Your task to perform on an android device: toggle priority inbox in the gmail app Image 0: 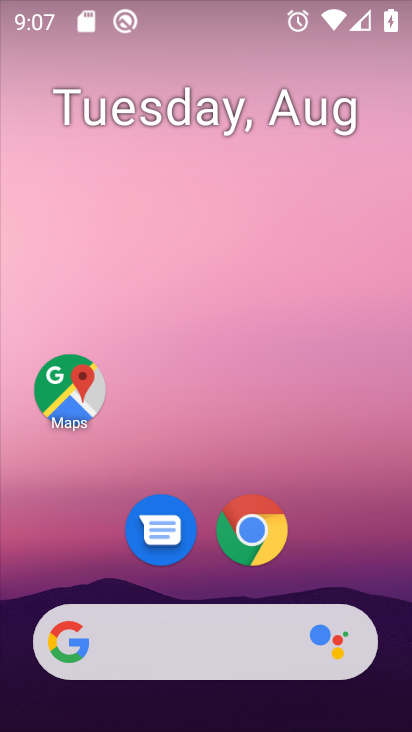
Step 0: drag from (333, 492) to (221, 97)
Your task to perform on an android device: toggle priority inbox in the gmail app Image 1: 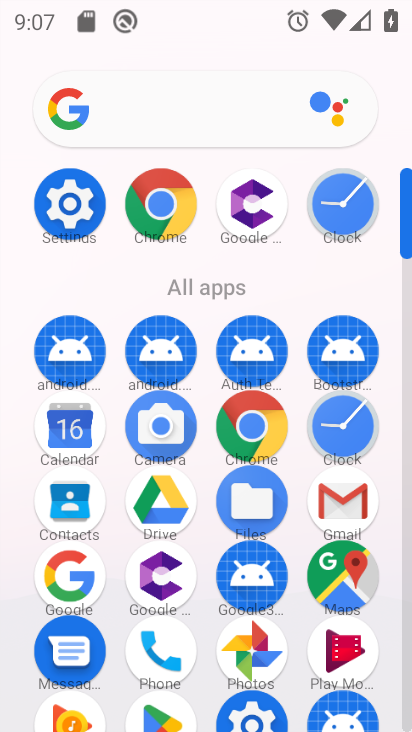
Step 1: click (336, 487)
Your task to perform on an android device: toggle priority inbox in the gmail app Image 2: 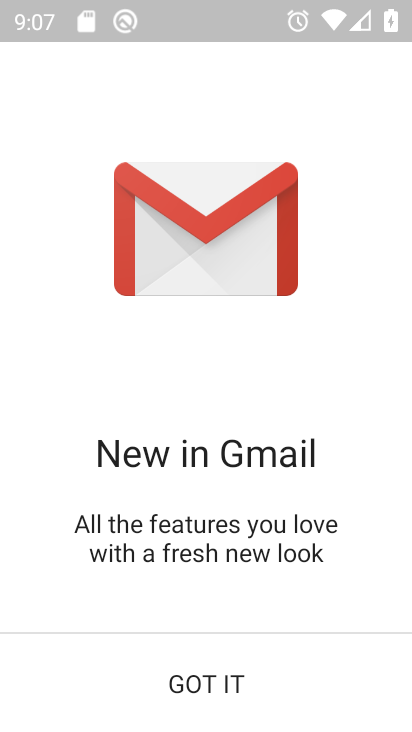
Step 2: click (240, 657)
Your task to perform on an android device: toggle priority inbox in the gmail app Image 3: 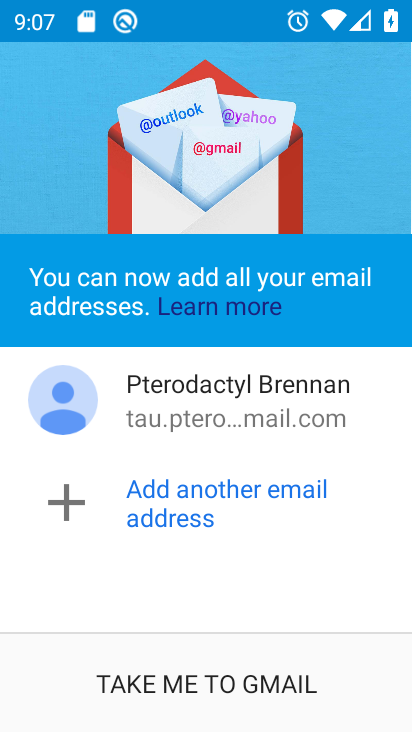
Step 3: click (236, 685)
Your task to perform on an android device: toggle priority inbox in the gmail app Image 4: 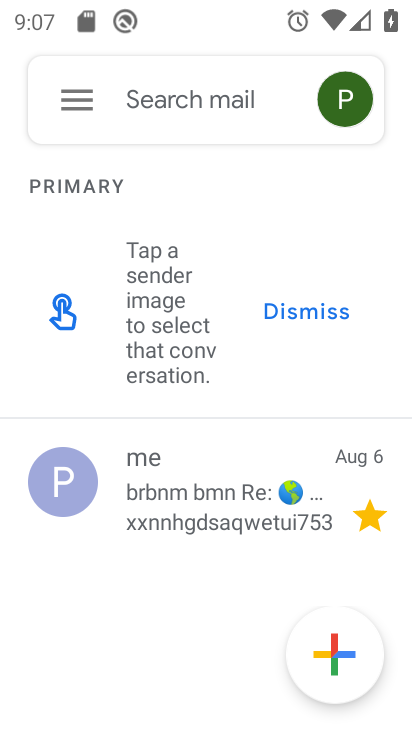
Step 4: click (62, 100)
Your task to perform on an android device: toggle priority inbox in the gmail app Image 5: 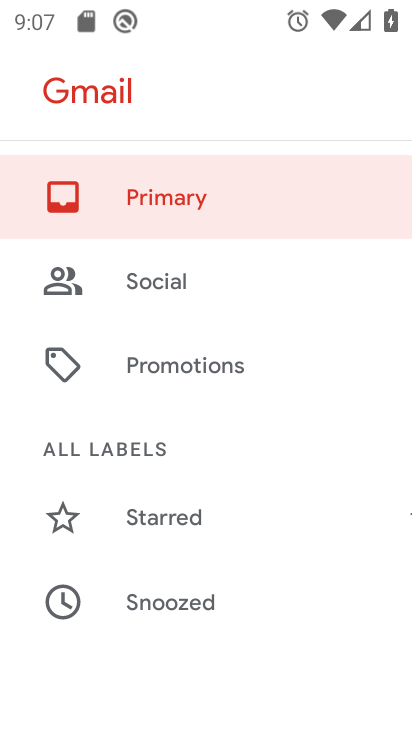
Step 5: drag from (174, 606) to (174, 4)
Your task to perform on an android device: toggle priority inbox in the gmail app Image 6: 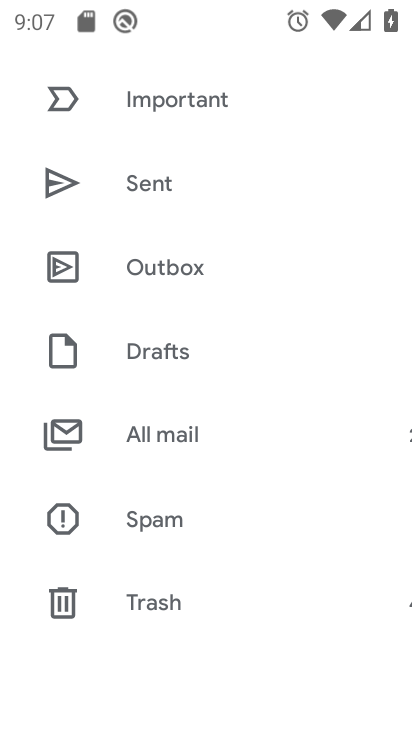
Step 6: drag from (213, 538) to (255, 88)
Your task to perform on an android device: toggle priority inbox in the gmail app Image 7: 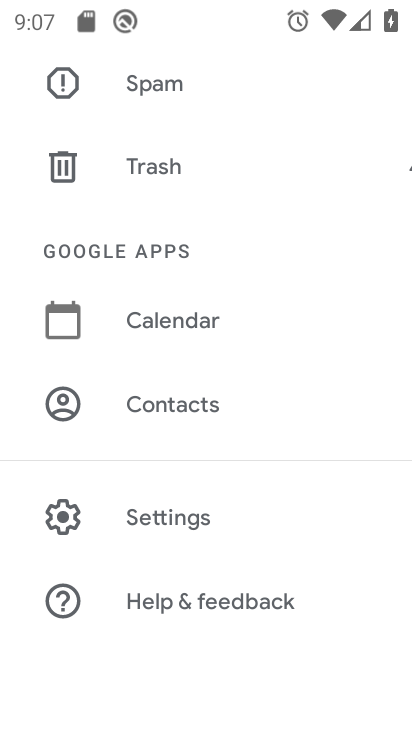
Step 7: drag from (231, 529) to (292, 53)
Your task to perform on an android device: toggle priority inbox in the gmail app Image 8: 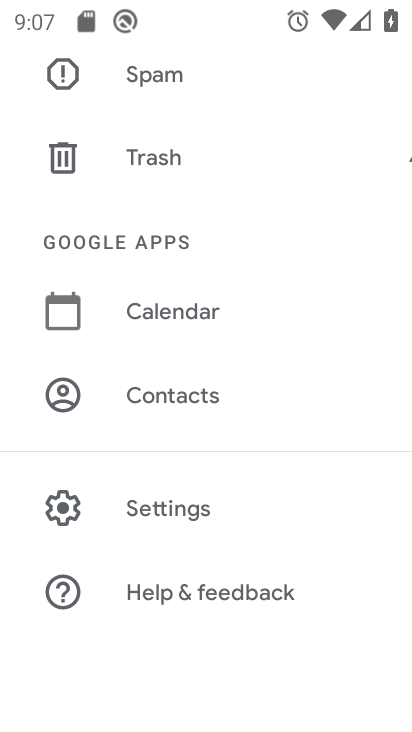
Step 8: click (168, 506)
Your task to perform on an android device: toggle priority inbox in the gmail app Image 9: 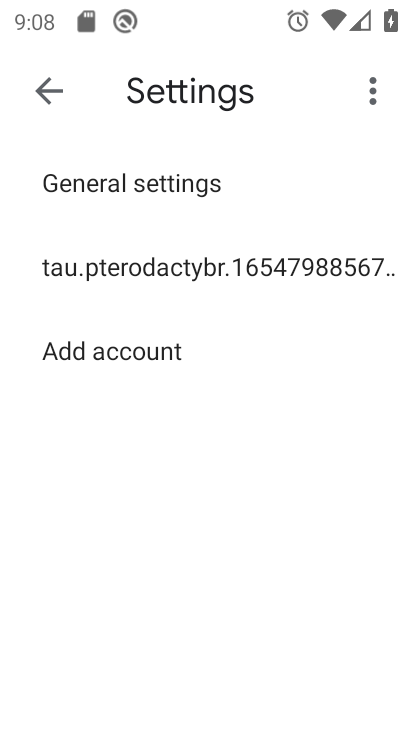
Step 9: click (184, 273)
Your task to perform on an android device: toggle priority inbox in the gmail app Image 10: 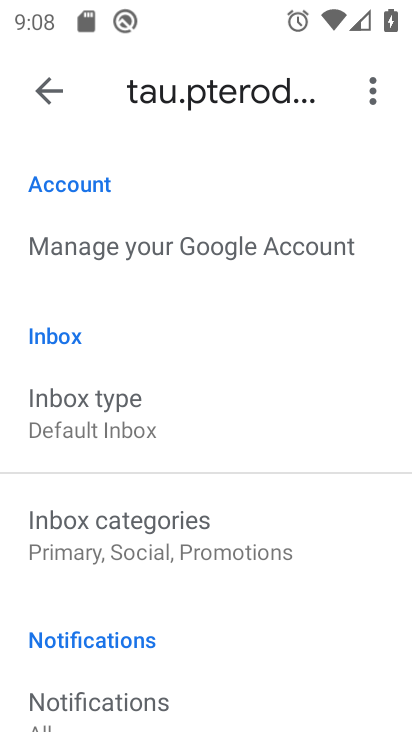
Step 10: click (107, 418)
Your task to perform on an android device: toggle priority inbox in the gmail app Image 11: 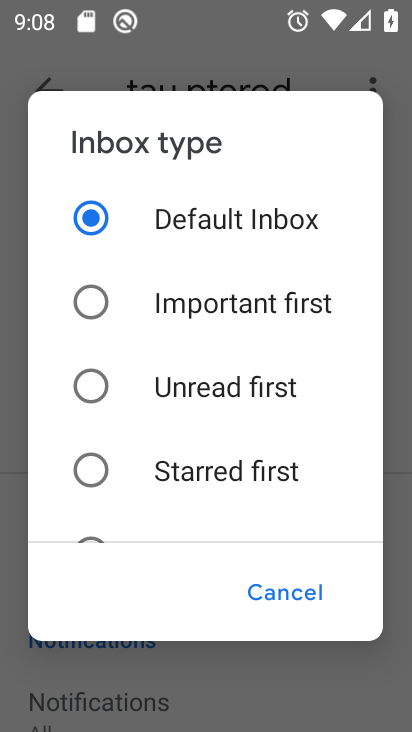
Step 11: drag from (160, 506) to (151, 254)
Your task to perform on an android device: toggle priority inbox in the gmail app Image 12: 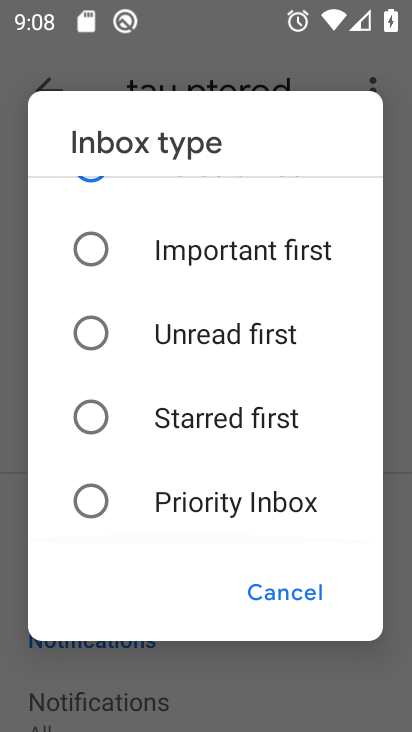
Step 12: click (161, 512)
Your task to perform on an android device: toggle priority inbox in the gmail app Image 13: 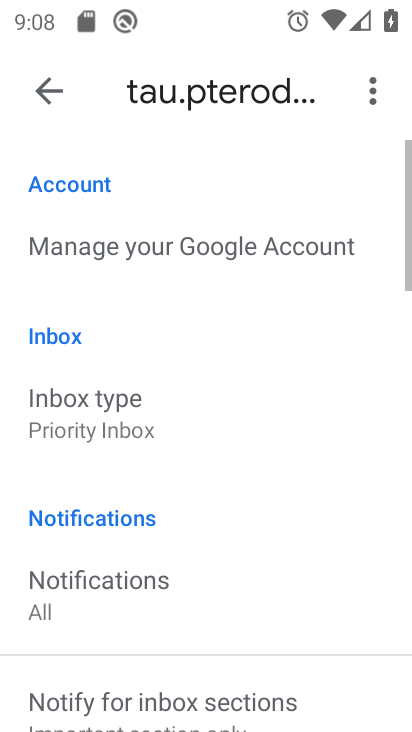
Step 13: task complete